Your task to perform on an android device: What's the weather? Image 0: 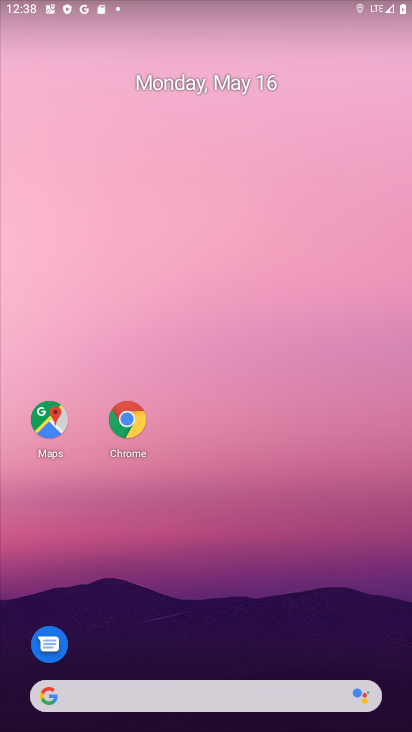
Step 0: click (280, 214)
Your task to perform on an android device: What's the weather? Image 1: 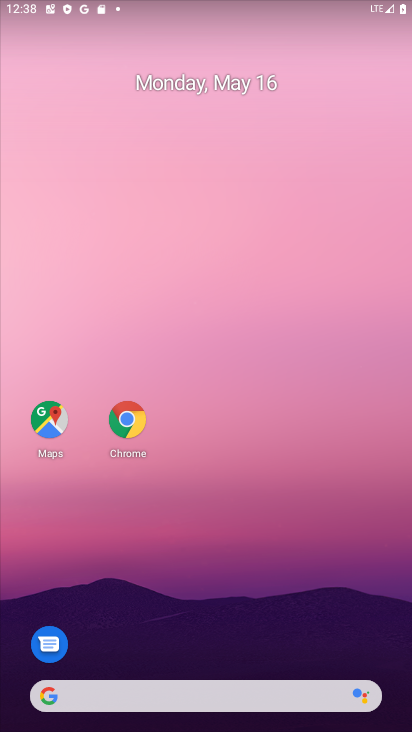
Step 1: drag from (175, 630) to (243, 207)
Your task to perform on an android device: What's the weather? Image 2: 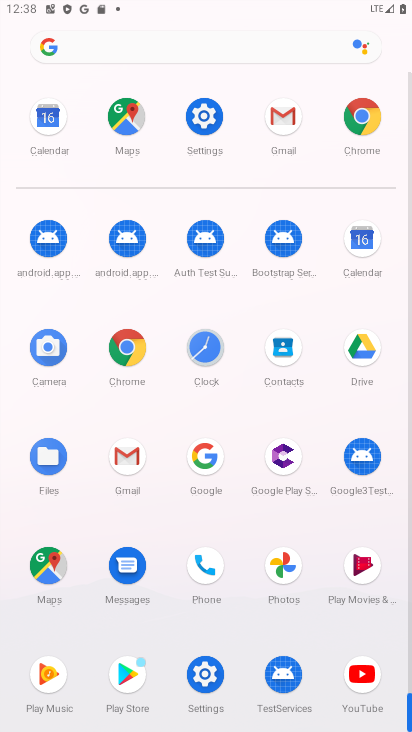
Step 2: click (199, 41)
Your task to perform on an android device: What's the weather? Image 3: 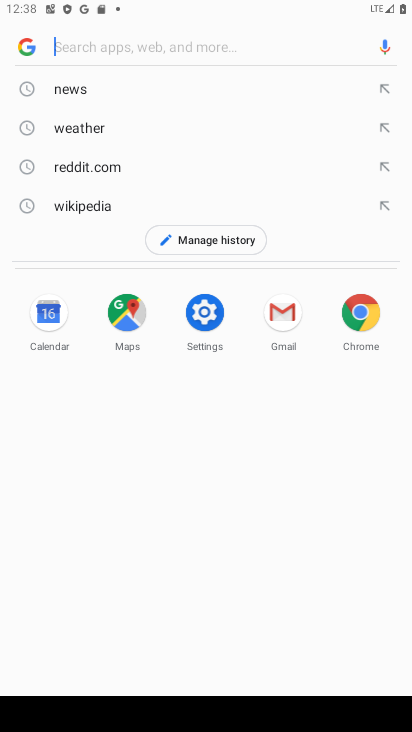
Step 3: click (73, 125)
Your task to perform on an android device: What's the weather? Image 4: 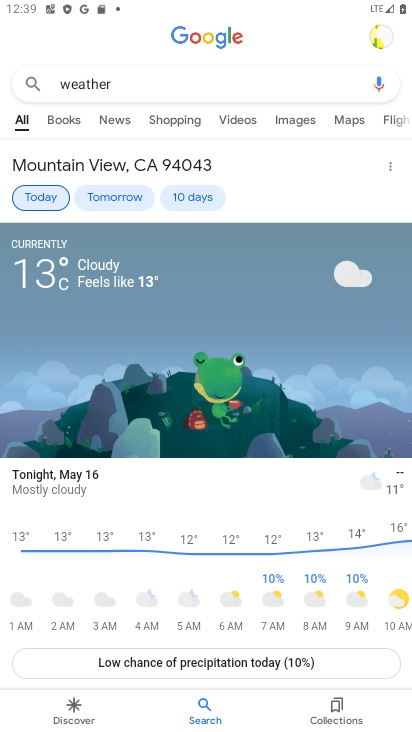
Step 4: drag from (254, 586) to (296, 387)
Your task to perform on an android device: What's the weather? Image 5: 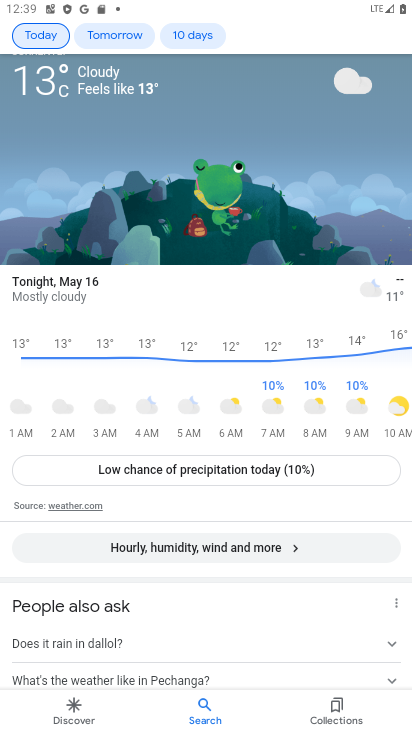
Step 5: drag from (224, 574) to (240, 500)
Your task to perform on an android device: What's the weather? Image 6: 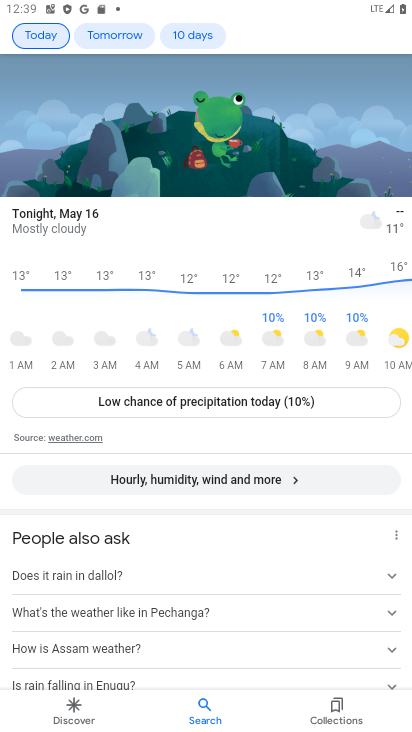
Step 6: click (247, 469)
Your task to perform on an android device: What's the weather? Image 7: 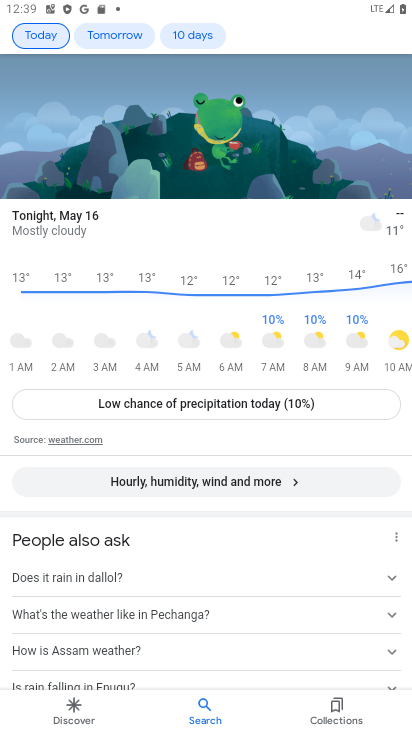
Step 7: task complete